Your task to perform on an android device: turn notification dots on Image 0: 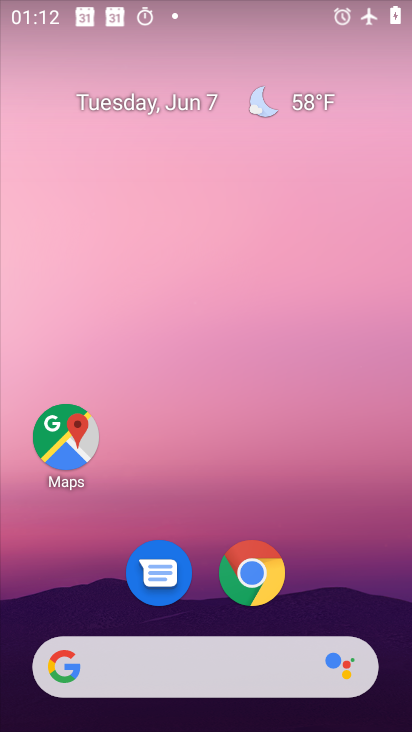
Step 0: drag from (317, 589) to (320, 18)
Your task to perform on an android device: turn notification dots on Image 1: 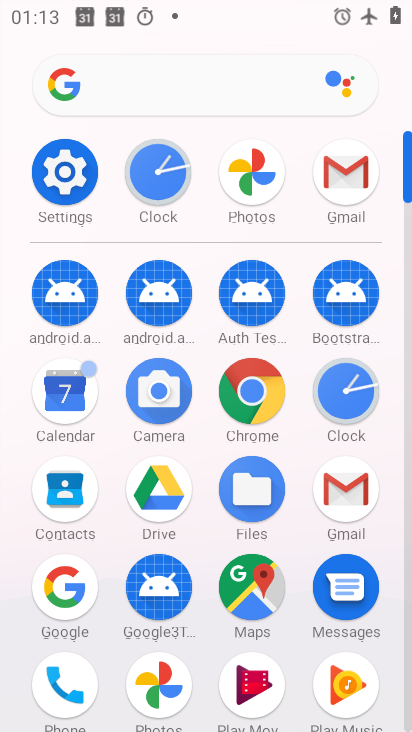
Step 1: drag from (207, 414) to (242, 81)
Your task to perform on an android device: turn notification dots on Image 2: 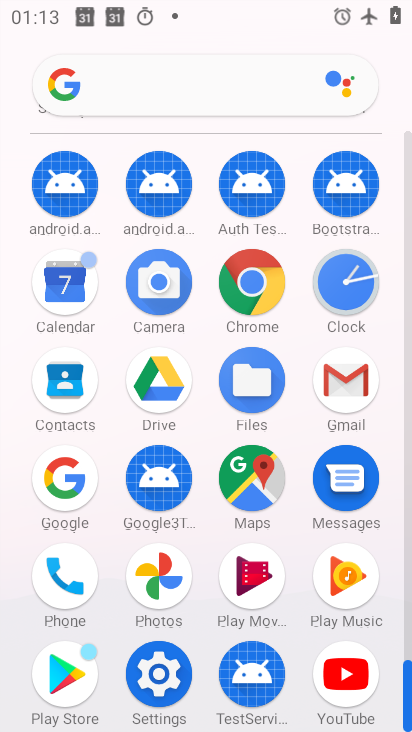
Step 2: click (158, 652)
Your task to perform on an android device: turn notification dots on Image 3: 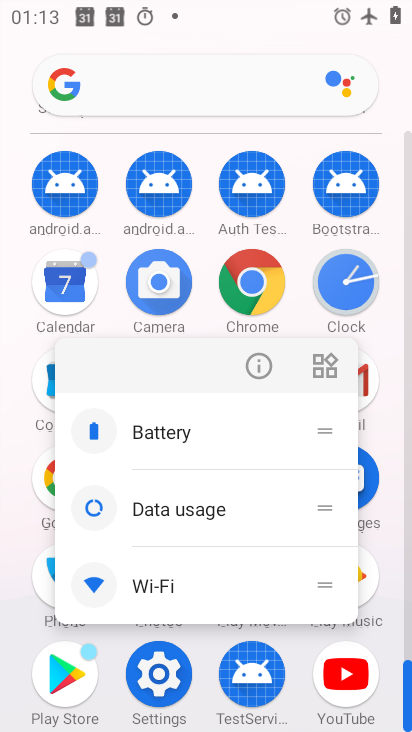
Step 3: click (156, 670)
Your task to perform on an android device: turn notification dots on Image 4: 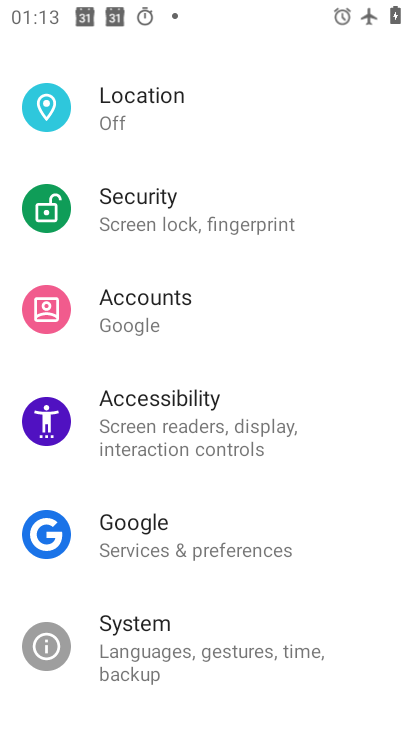
Step 4: drag from (230, 145) to (167, 622)
Your task to perform on an android device: turn notification dots on Image 5: 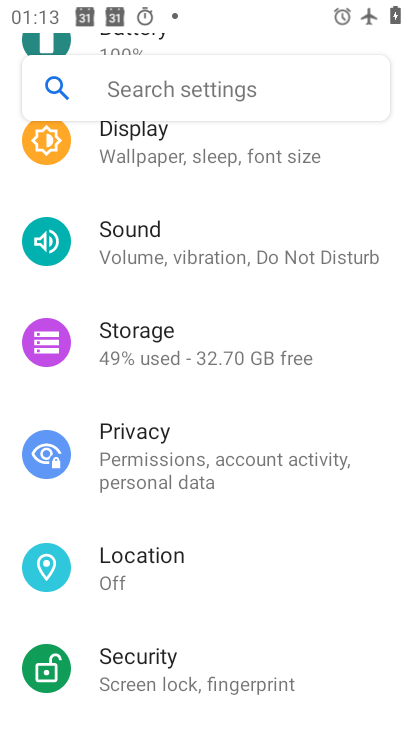
Step 5: drag from (190, 196) to (58, 574)
Your task to perform on an android device: turn notification dots on Image 6: 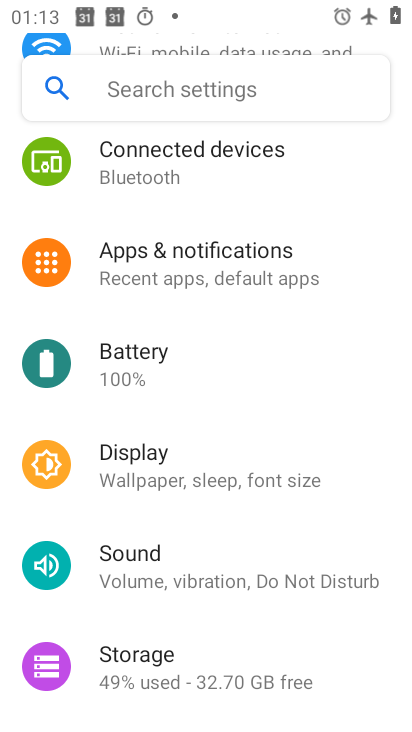
Step 6: click (137, 261)
Your task to perform on an android device: turn notification dots on Image 7: 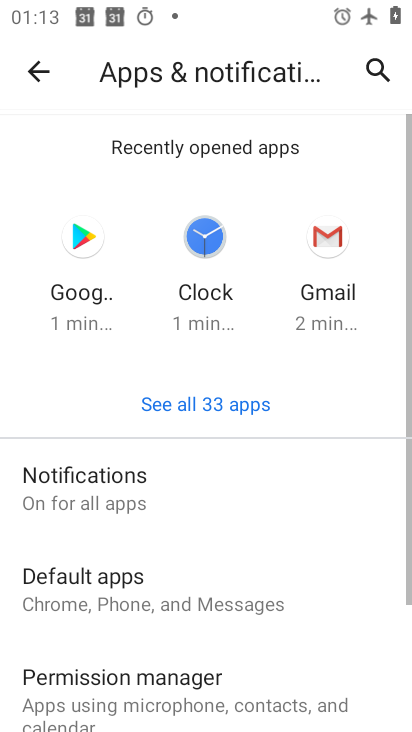
Step 7: click (64, 486)
Your task to perform on an android device: turn notification dots on Image 8: 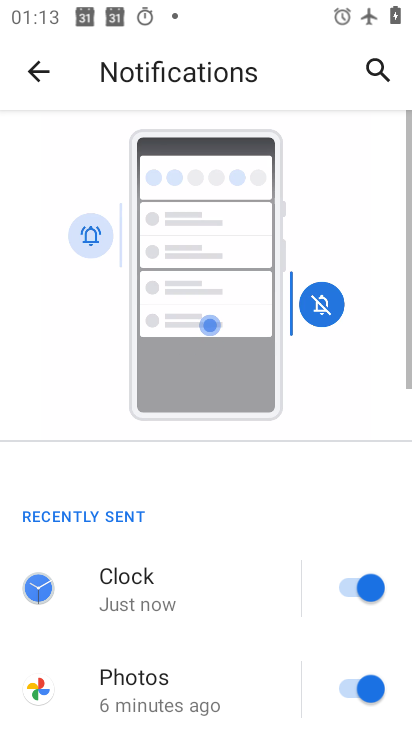
Step 8: drag from (229, 677) to (305, 252)
Your task to perform on an android device: turn notification dots on Image 9: 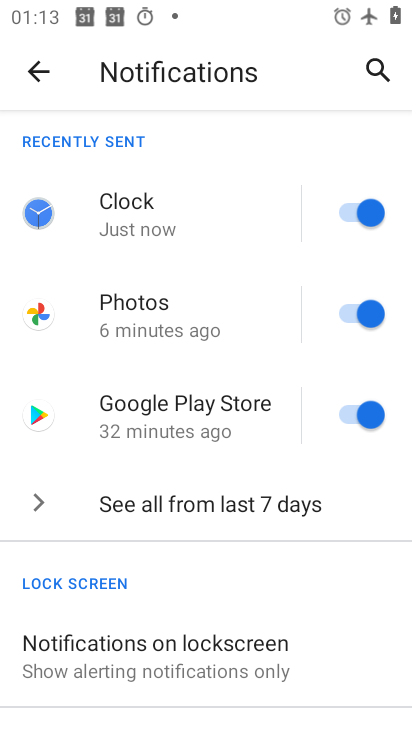
Step 9: drag from (290, 600) to (281, 241)
Your task to perform on an android device: turn notification dots on Image 10: 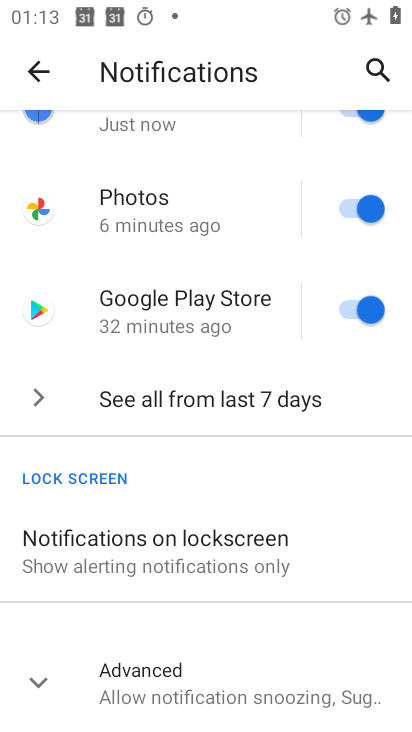
Step 10: click (171, 692)
Your task to perform on an android device: turn notification dots on Image 11: 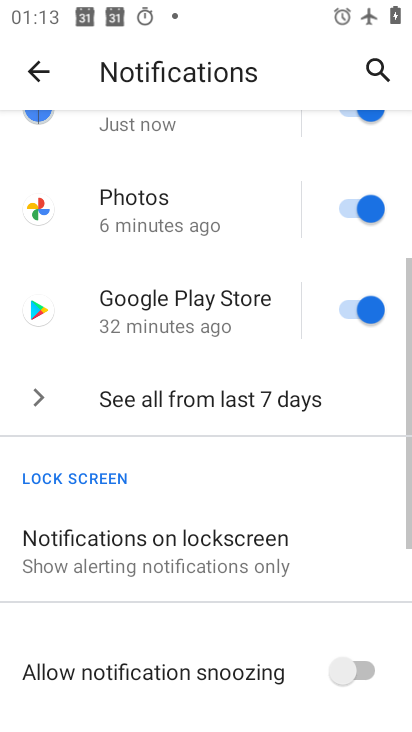
Step 11: task complete